Your task to perform on an android device: turn on location history Image 0: 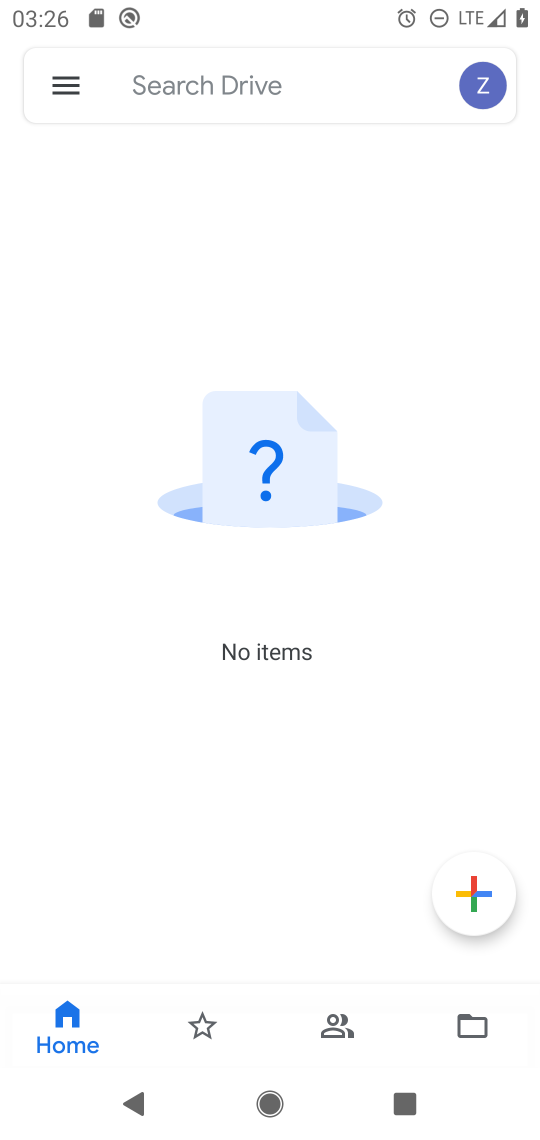
Step 0: press home button
Your task to perform on an android device: turn on location history Image 1: 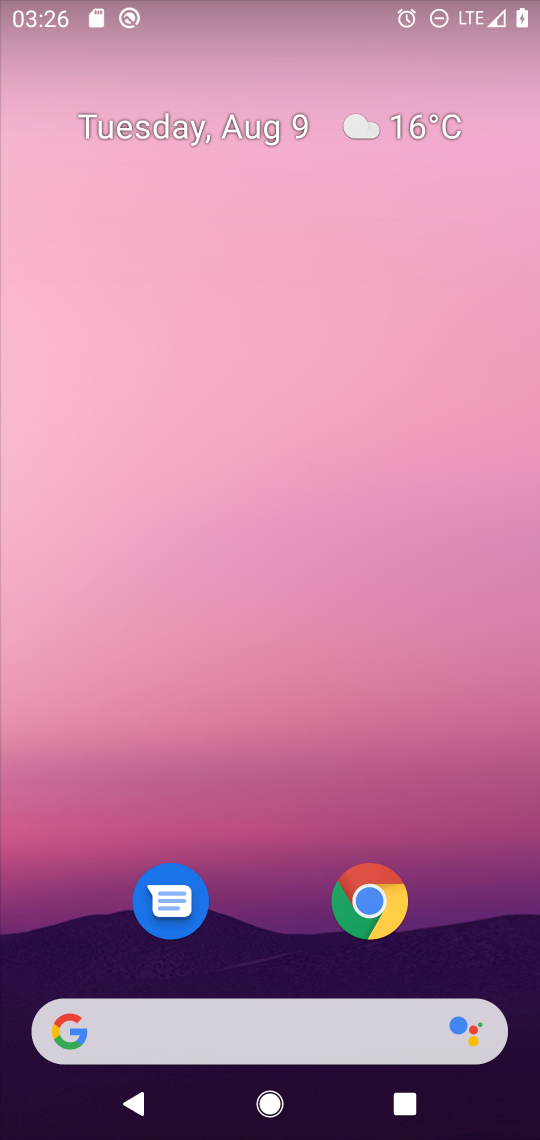
Step 1: drag from (494, 944) to (455, 72)
Your task to perform on an android device: turn on location history Image 2: 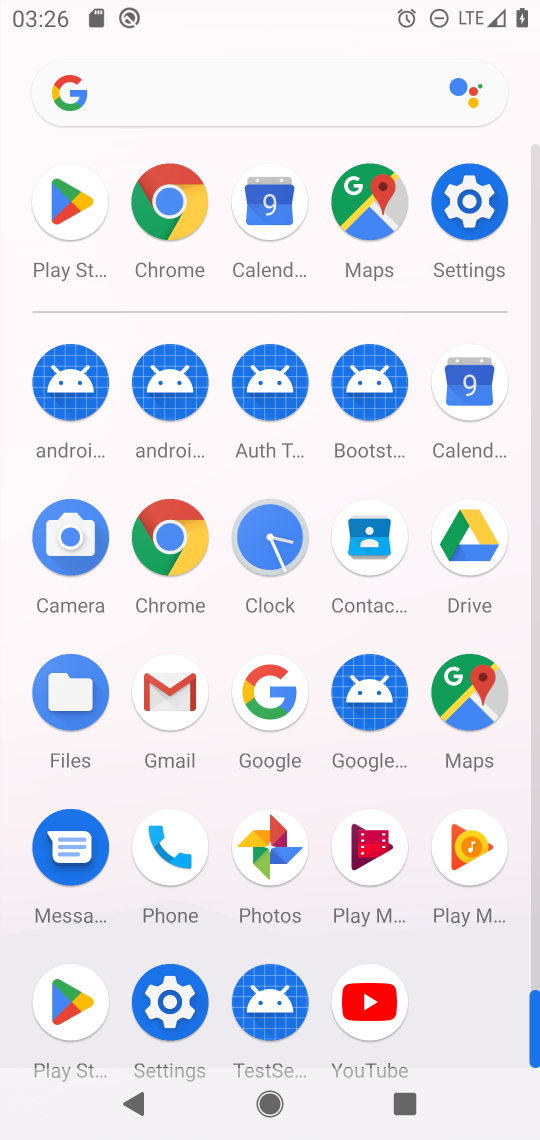
Step 2: click (473, 686)
Your task to perform on an android device: turn on location history Image 3: 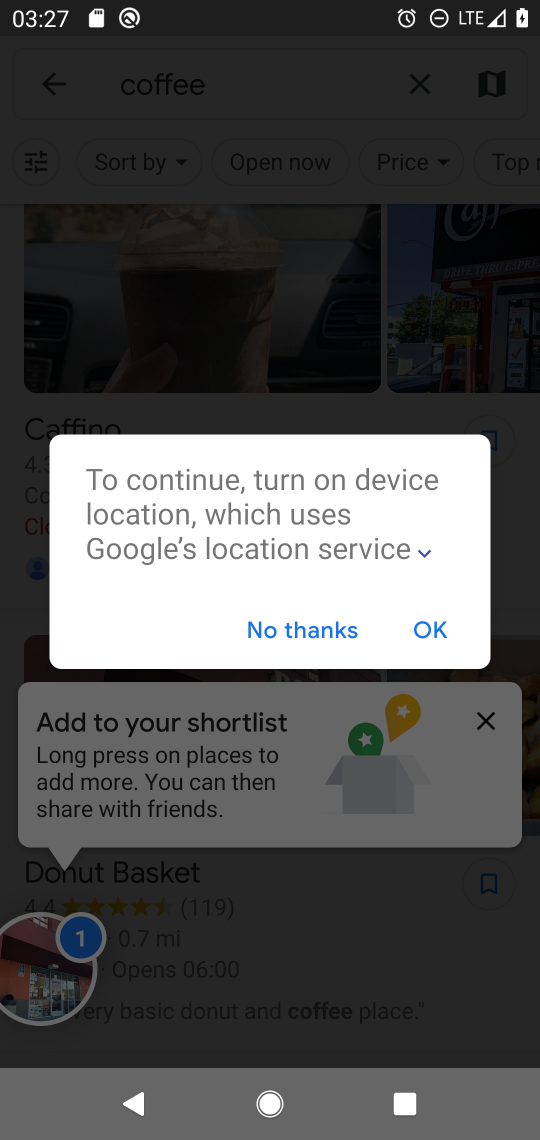
Step 3: click (424, 634)
Your task to perform on an android device: turn on location history Image 4: 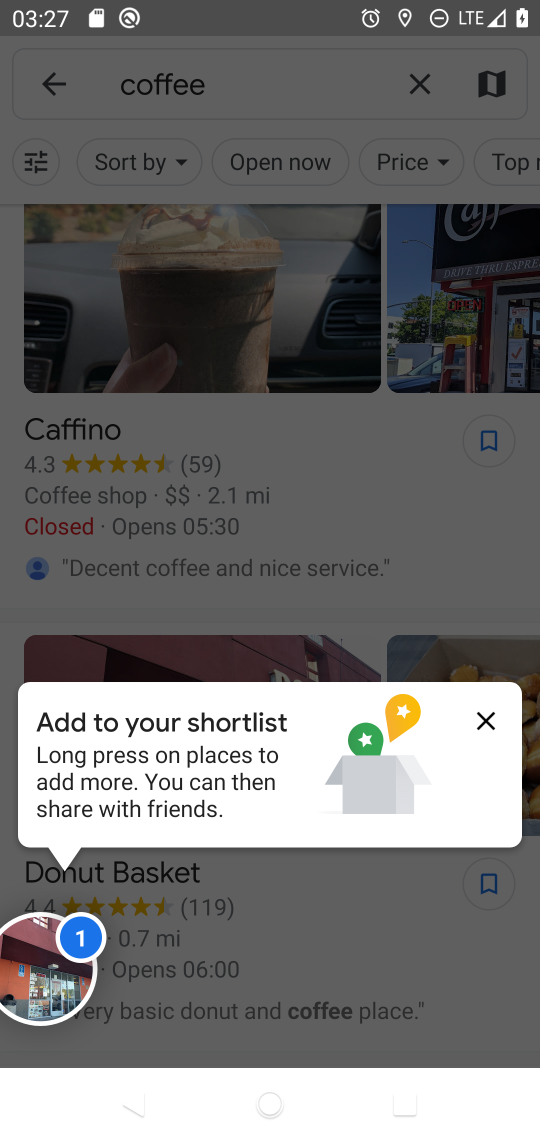
Step 4: click (487, 715)
Your task to perform on an android device: turn on location history Image 5: 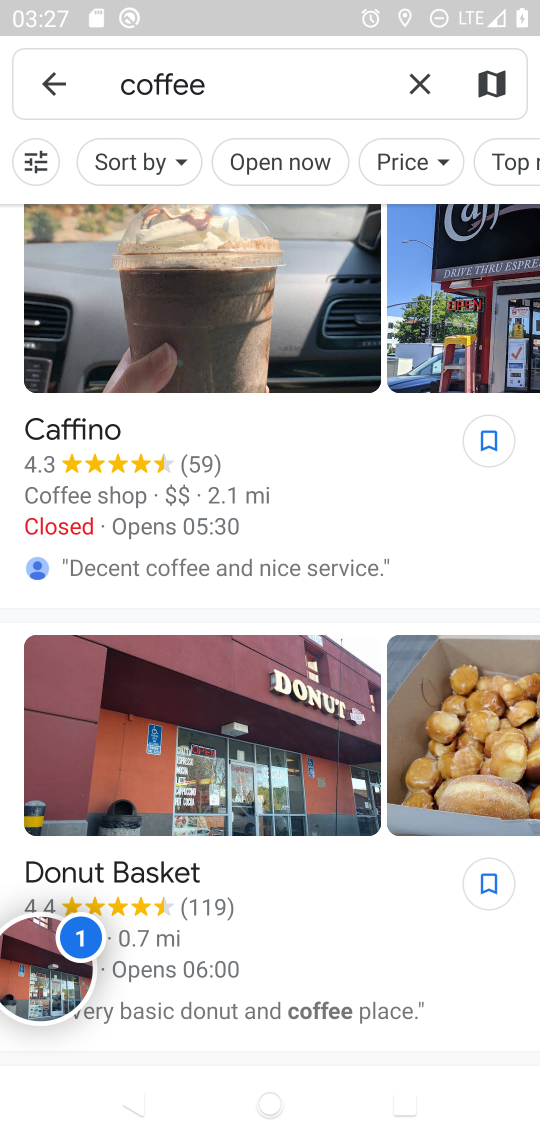
Step 5: click (417, 84)
Your task to perform on an android device: turn on location history Image 6: 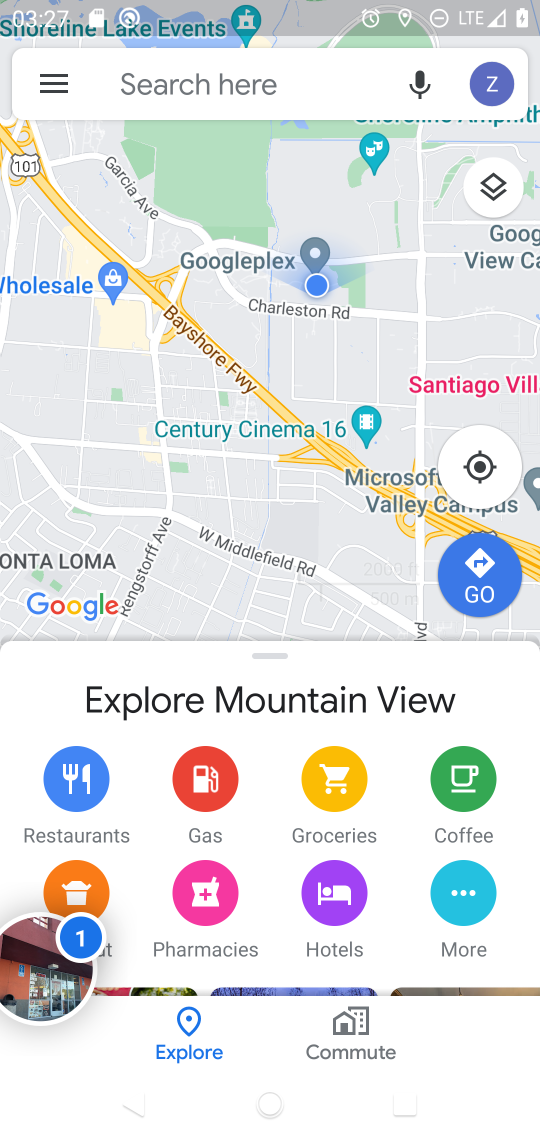
Step 6: click (51, 79)
Your task to perform on an android device: turn on location history Image 7: 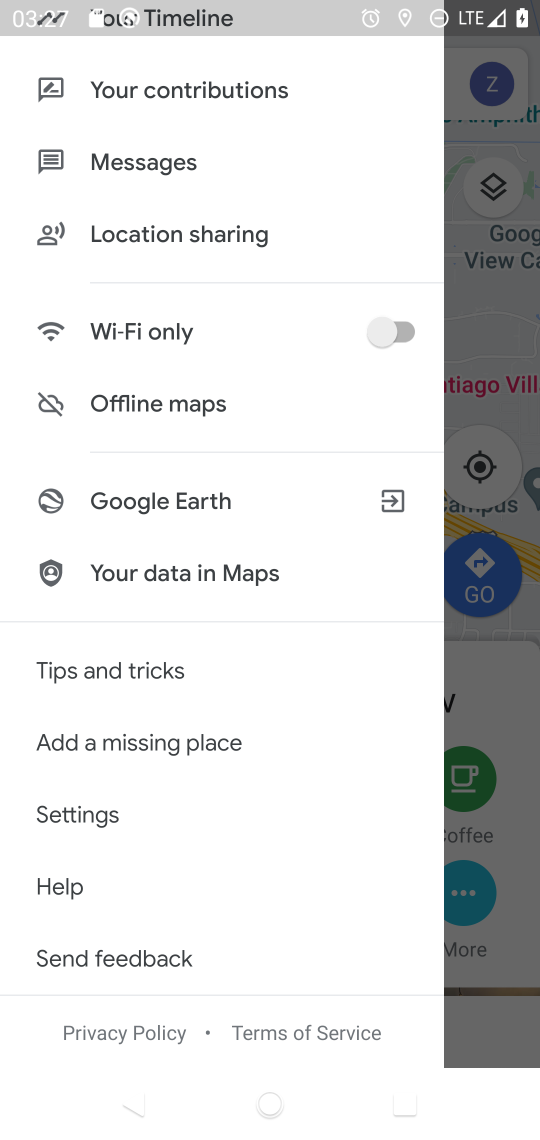
Step 7: click (100, 813)
Your task to perform on an android device: turn on location history Image 8: 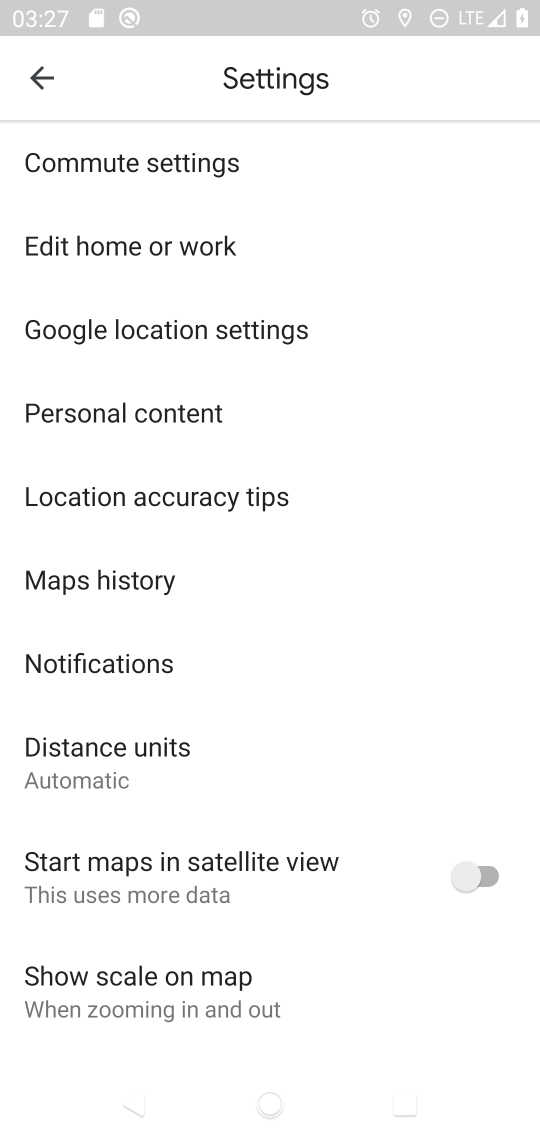
Step 8: click (121, 412)
Your task to perform on an android device: turn on location history Image 9: 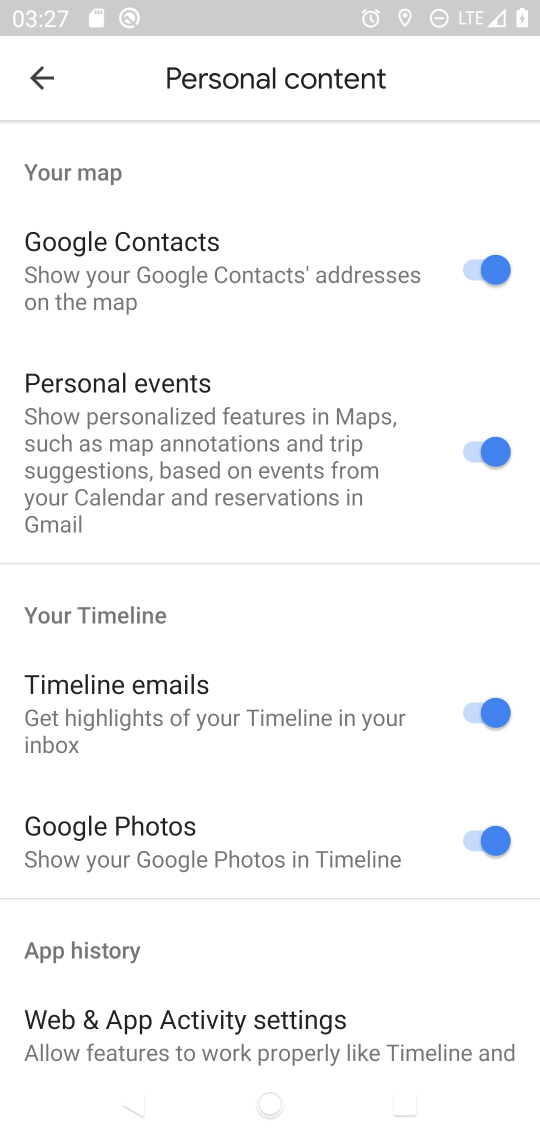
Step 9: drag from (390, 815) to (341, 190)
Your task to perform on an android device: turn on location history Image 10: 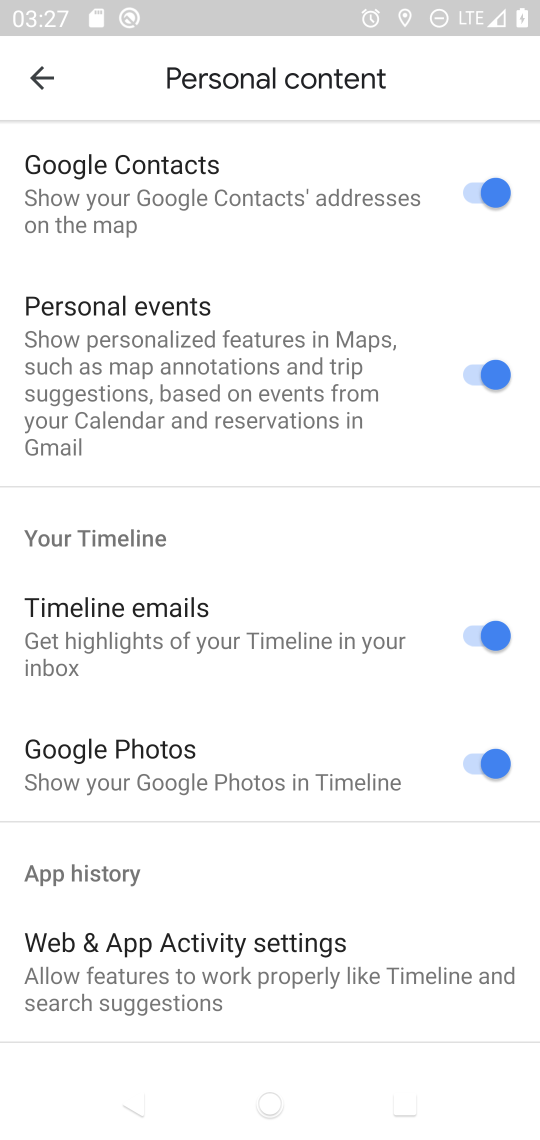
Step 10: drag from (355, 934) to (350, 337)
Your task to perform on an android device: turn on location history Image 11: 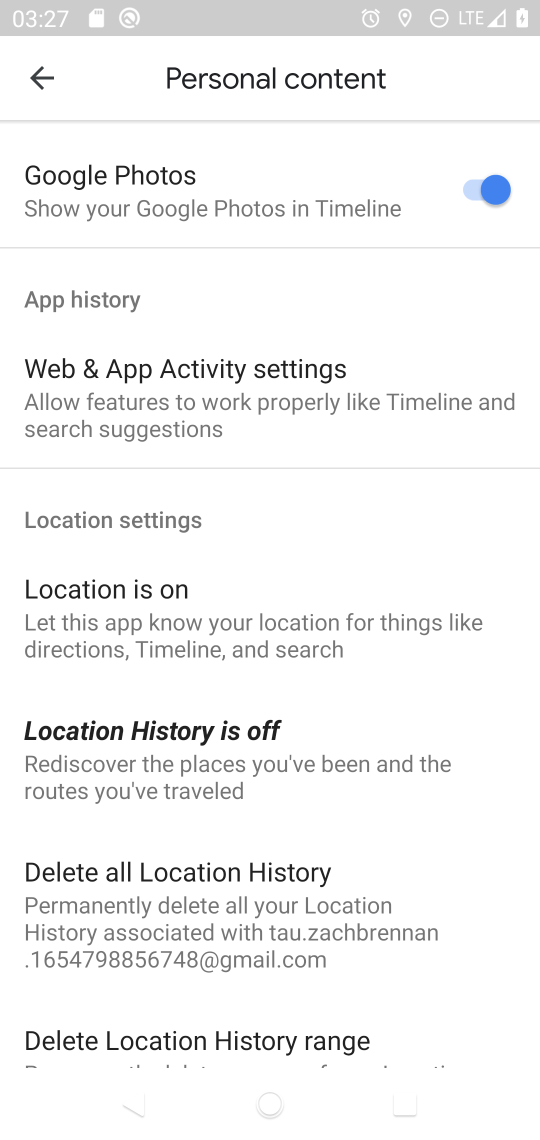
Step 11: click (133, 758)
Your task to perform on an android device: turn on location history Image 12: 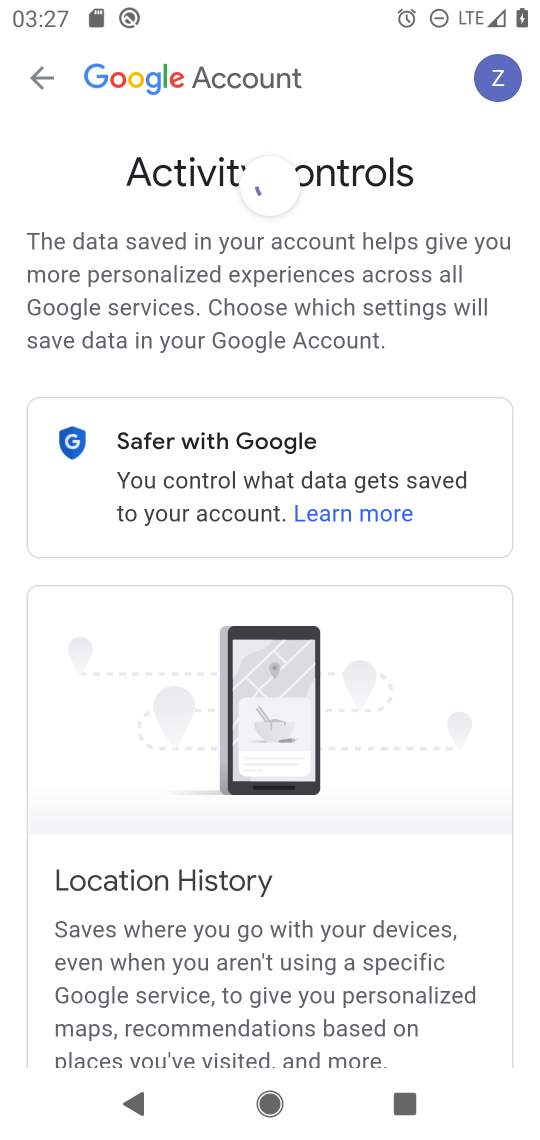
Step 12: task complete